Your task to perform on an android device: Go to network settings Image 0: 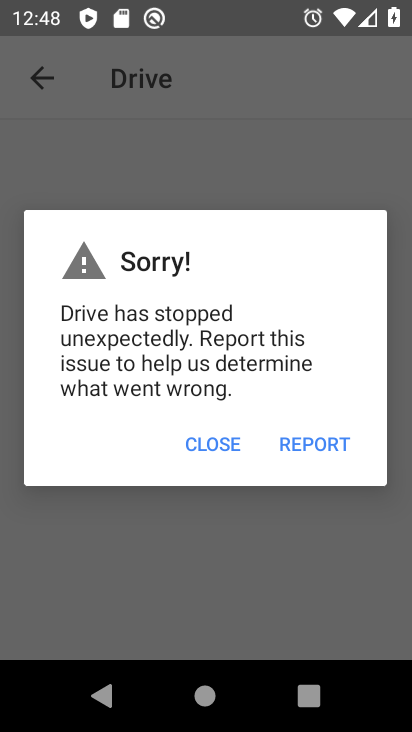
Step 0: press home button
Your task to perform on an android device: Go to network settings Image 1: 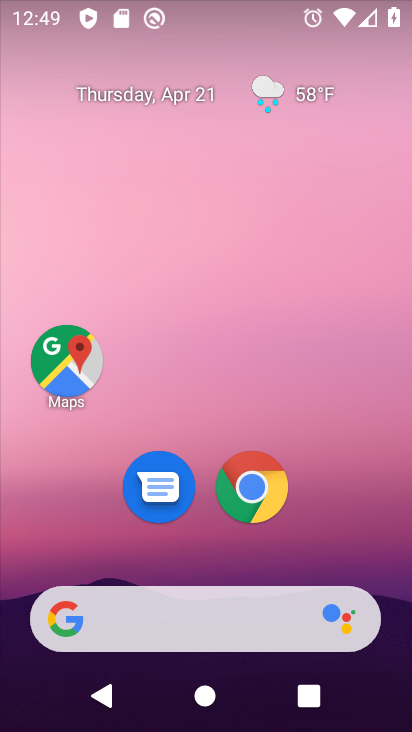
Step 1: drag from (382, 542) to (389, 361)
Your task to perform on an android device: Go to network settings Image 2: 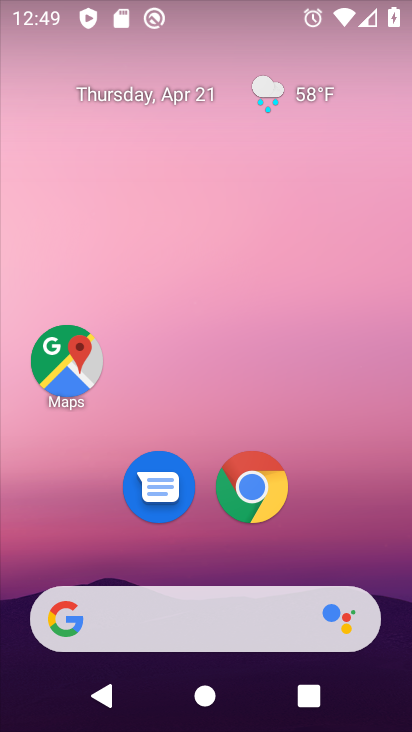
Step 2: drag from (366, 526) to (401, 555)
Your task to perform on an android device: Go to network settings Image 3: 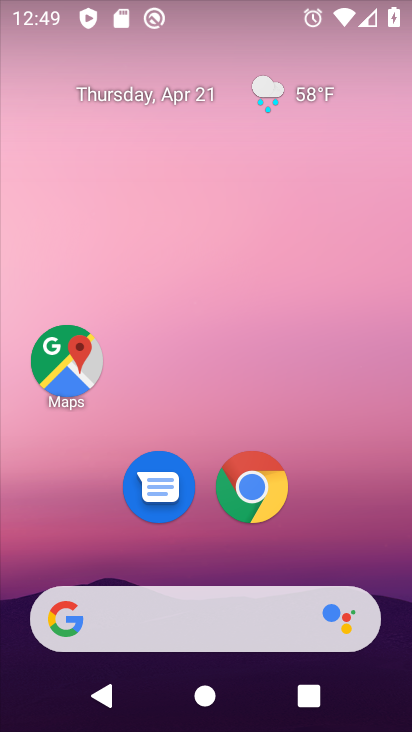
Step 3: drag from (334, 535) to (339, 2)
Your task to perform on an android device: Go to network settings Image 4: 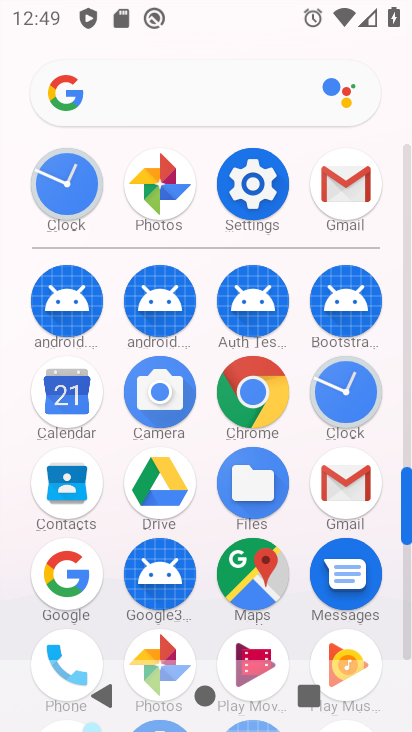
Step 4: click (249, 185)
Your task to perform on an android device: Go to network settings Image 5: 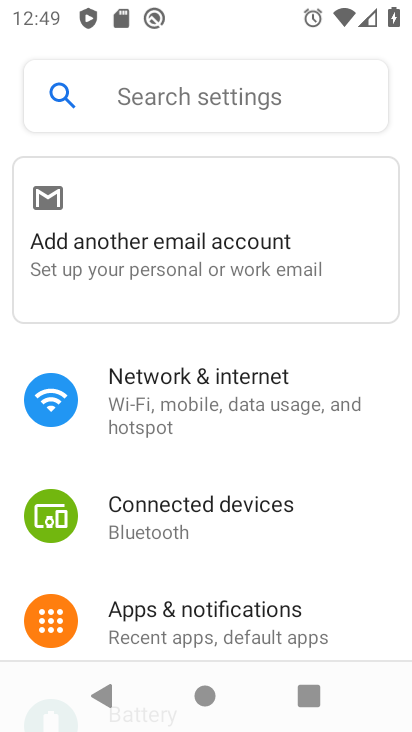
Step 5: click (170, 415)
Your task to perform on an android device: Go to network settings Image 6: 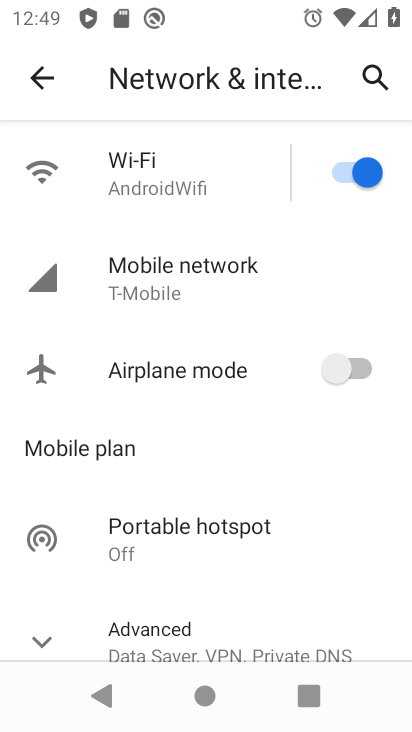
Step 6: click (187, 288)
Your task to perform on an android device: Go to network settings Image 7: 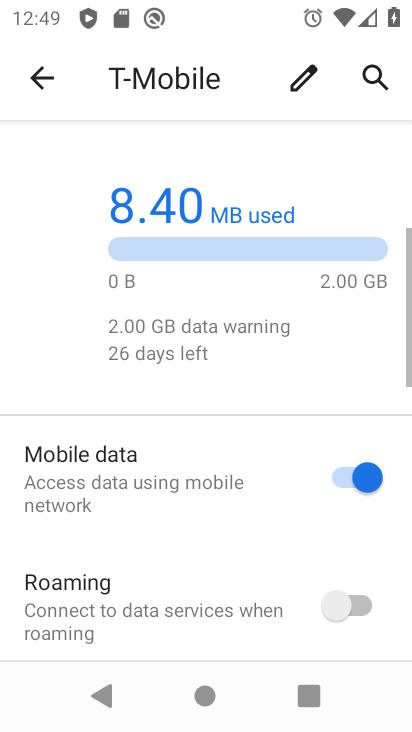
Step 7: drag from (179, 539) to (174, 139)
Your task to perform on an android device: Go to network settings Image 8: 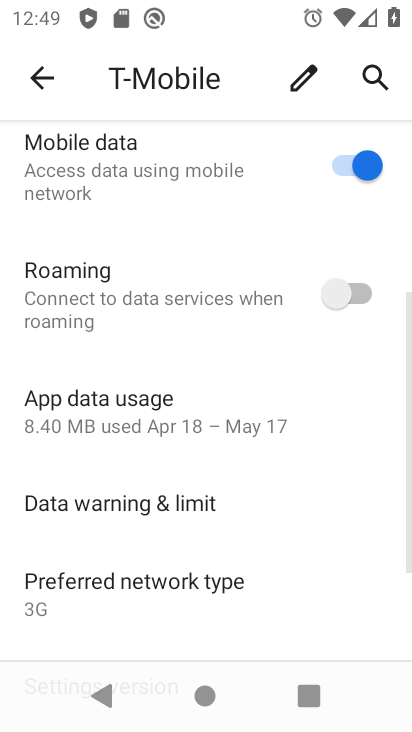
Step 8: drag from (157, 489) to (161, 108)
Your task to perform on an android device: Go to network settings Image 9: 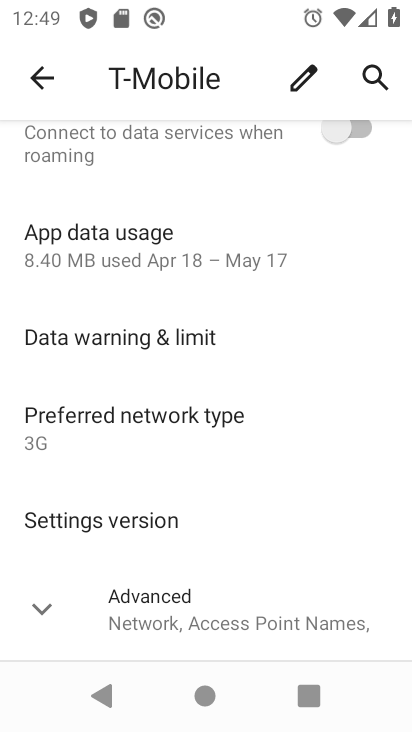
Step 9: click (34, 618)
Your task to perform on an android device: Go to network settings Image 10: 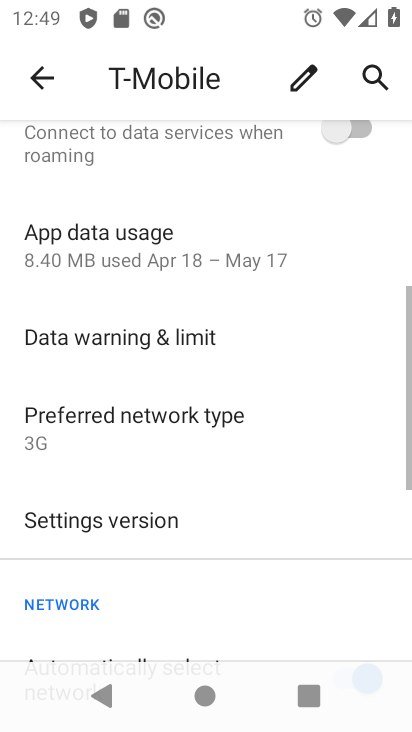
Step 10: task complete